Your task to perform on an android device: turn off priority inbox in the gmail app Image 0: 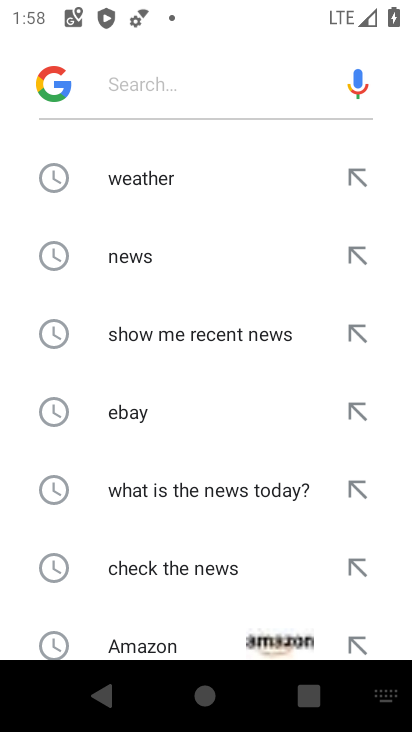
Step 0: press home button
Your task to perform on an android device: turn off priority inbox in the gmail app Image 1: 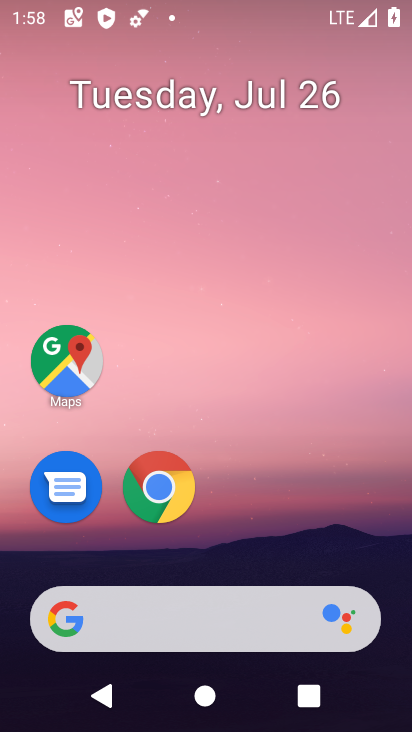
Step 1: drag from (213, 580) to (246, 140)
Your task to perform on an android device: turn off priority inbox in the gmail app Image 2: 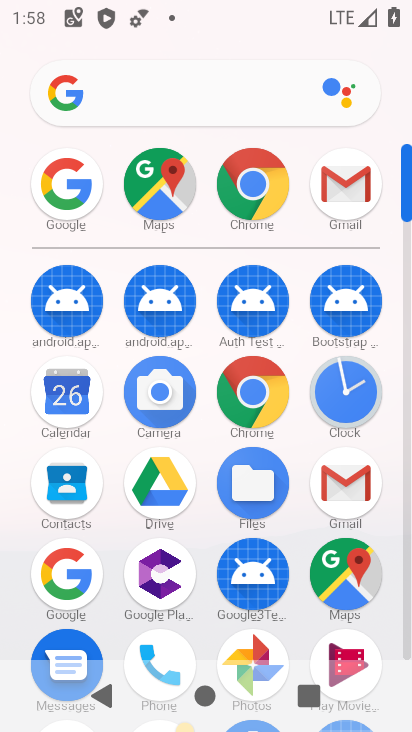
Step 2: click (344, 487)
Your task to perform on an android device: turn off priority inbox in the gmail app Image 3: 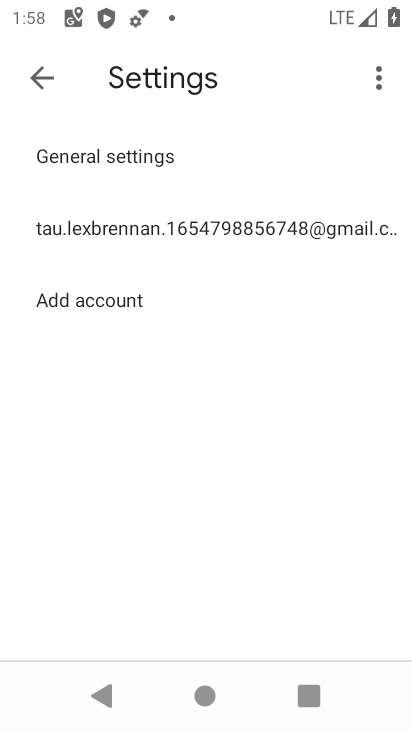
Step 3: click (210, 231)
Your task to perform on an android device: turn off priority inbox in the gmail app Image 4: 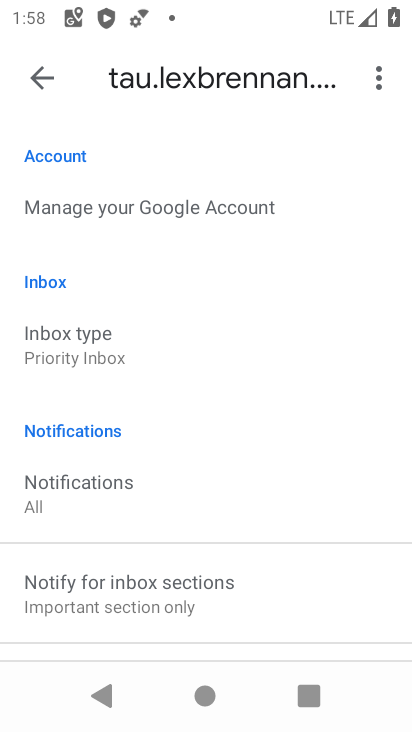
Step 4: click (98, 356)
Your task to perform on an android device: turn off priority inbox in the gmail app Image 5: 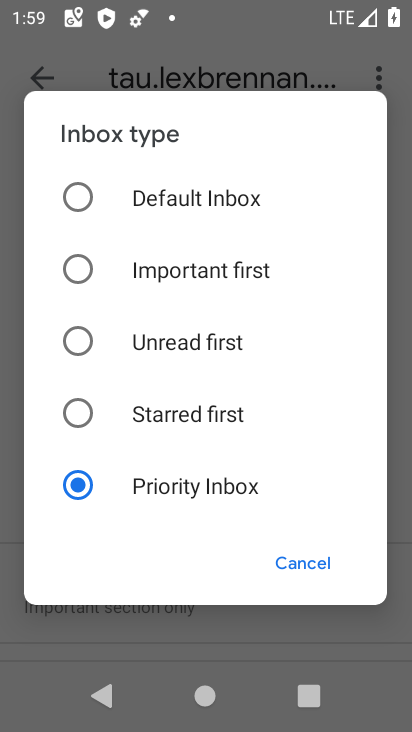
Step 5: click (75, 204)
Your task to perform on an android device: turn off priority inbox in the gmail app Image 6: 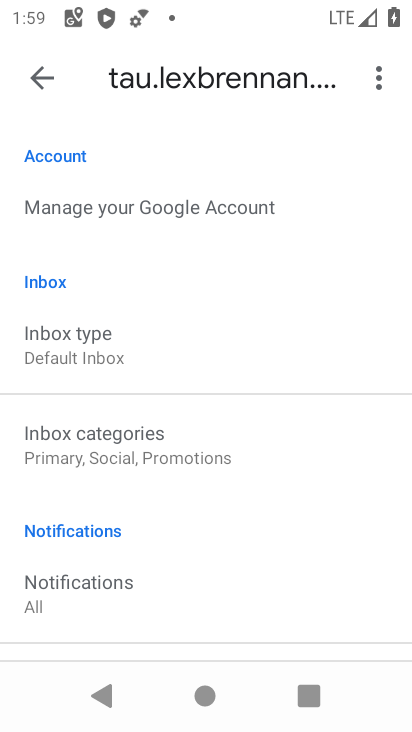
Step 6: task complete